Your task to perform on an android device: allow notifications from all sites in the chrome app Image 0: 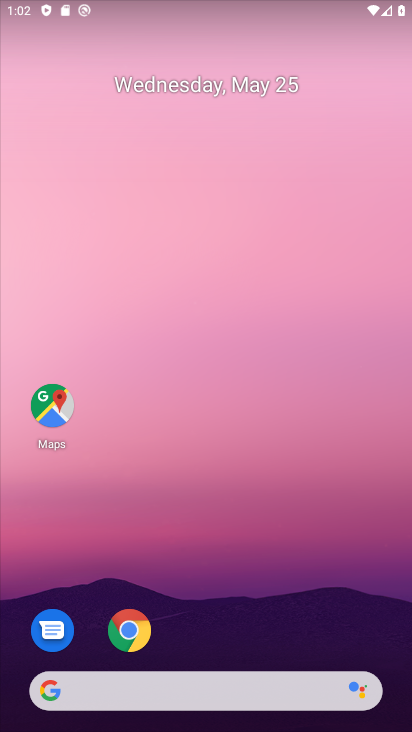
Step 0: drag from (324, 711) to (160, 87)
Your task to perform on an android device: allow notifications from all sites in the chrome app Image 1: 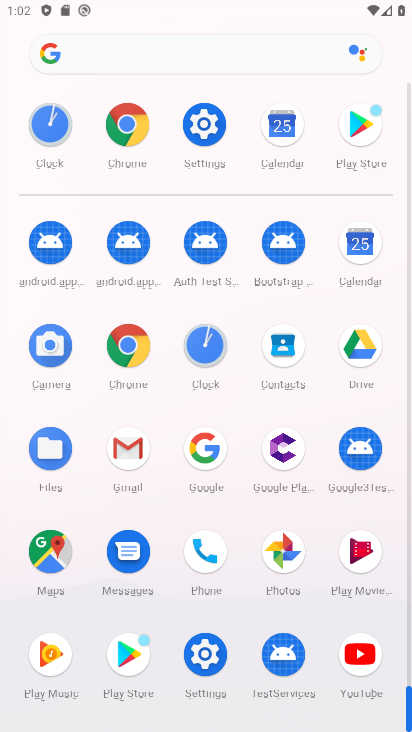
Step 1: click (126, 345)
Your task to perform on an android device: allow notifications from all sites in the chrome app Image 2: 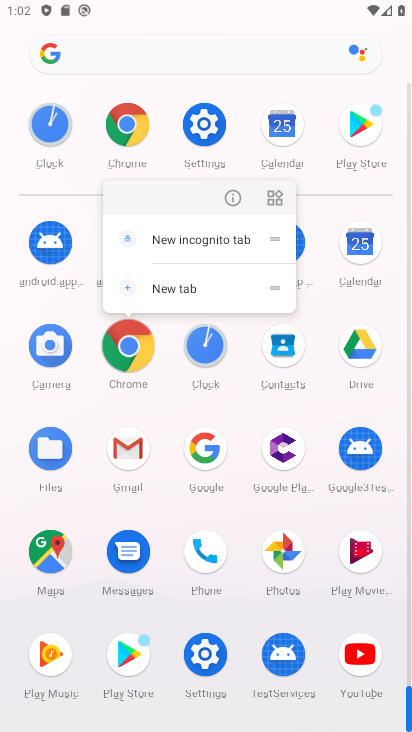
Step 2: click (126, 341)
Your task to perform on an android device: allow notifications from all sites in the chrome app Image 3: 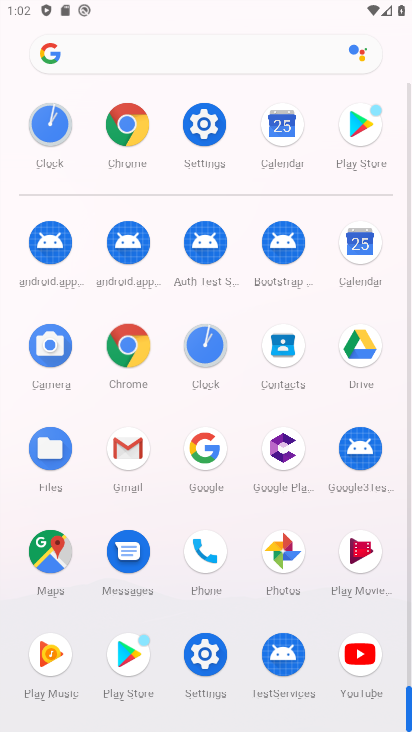
Step 3: click (126, 341)
Your task to perform on an android device: allow notifications from all sites in the chrome app Image 4: 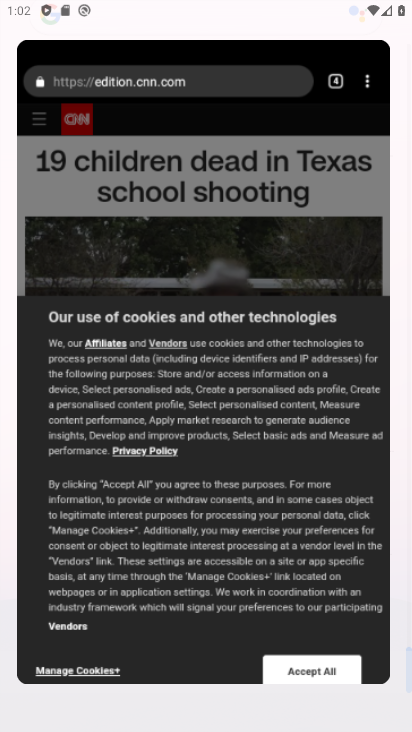
Step 4: click (126, 341)
Your task to perform on an android device: allow notifications from all sites in the chrome app Image 5: 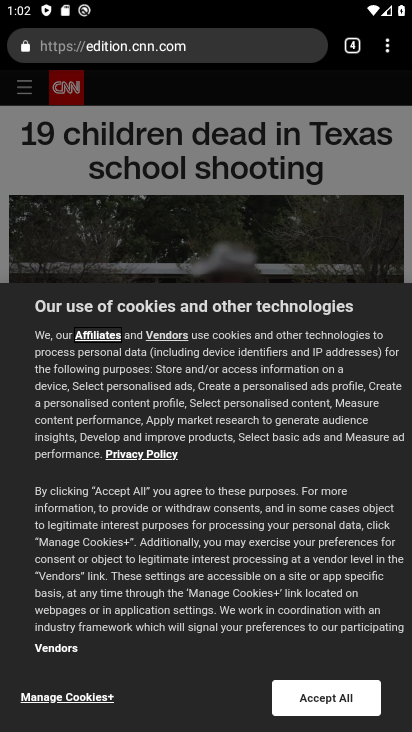
Step 5: drag from (387, 39) to (213, 604)
Your task to perform on an android device: allow notifications from all sites in the chrome app Image 6: 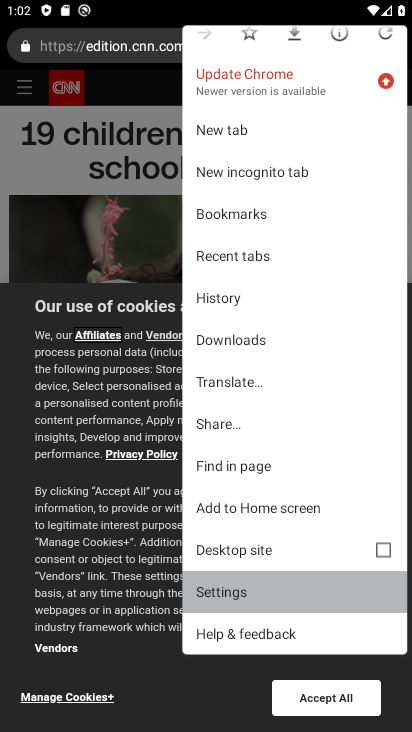
Step 6: click (214, 603)
Your task to perform on an android device: allow notifications from all sites in the chrome app Image 7: 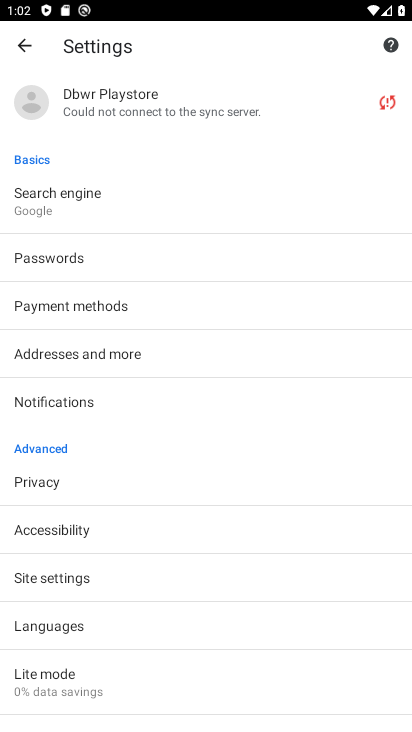
Step 7: click (40, 585)
Your task to perform on an android device: allow notifications from all sites in the chrome app Image 8: 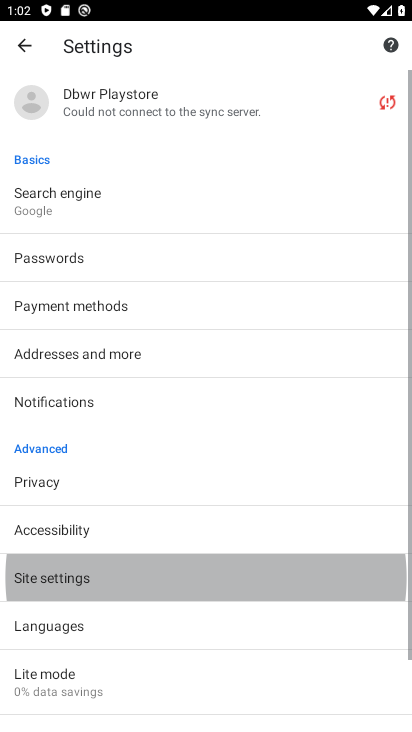
Step 8: click (40, 585)
Your task to perform on an android device: allow notifications from all sites in the chrome app Image 9: 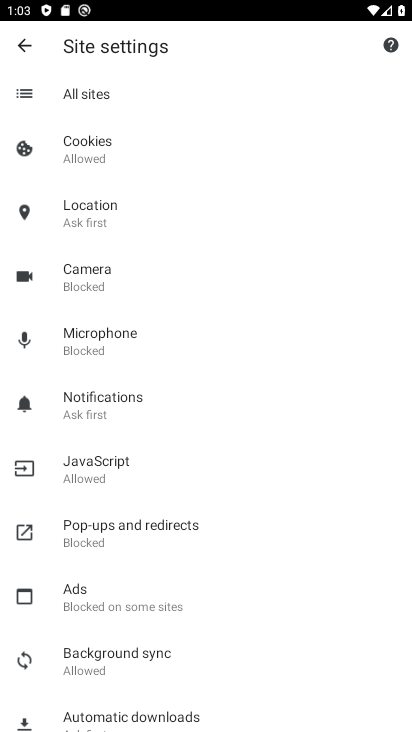
Step 9: click (86, 94)
Your task to perform on an android device: allow notifications from all sites in the chrome app Image 10: 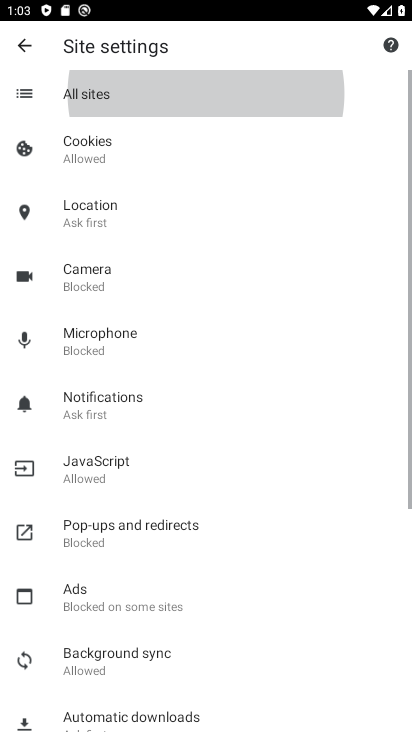
Step 10: click (87, 94)
Your task to perform on an android device: allow notifications from all sites in the chrome app Image 11: 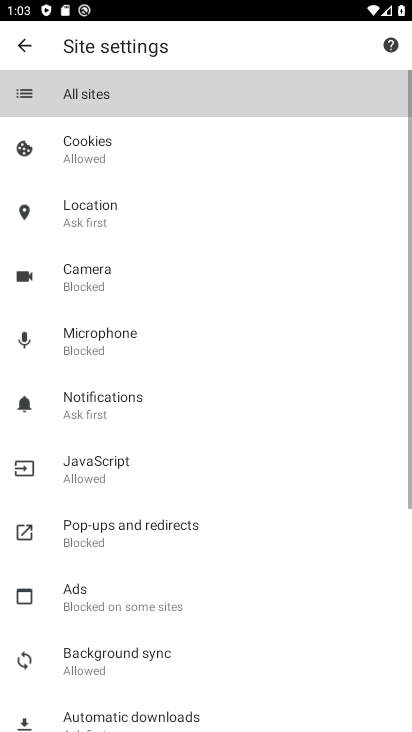
Step 11: click (87, 94)
Your task to perform on an android device: allow notifications from all sites in the chrome app Image 12: 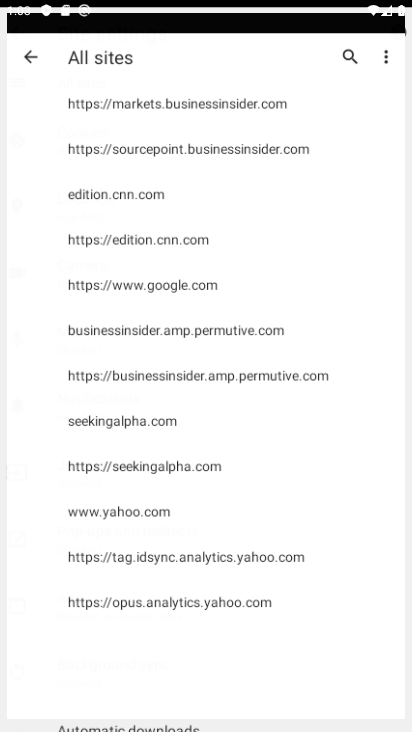
Step 12: click (87, 94)
Your task to perform on an android device: allow notifications from all sites in the chrome app Image 13: 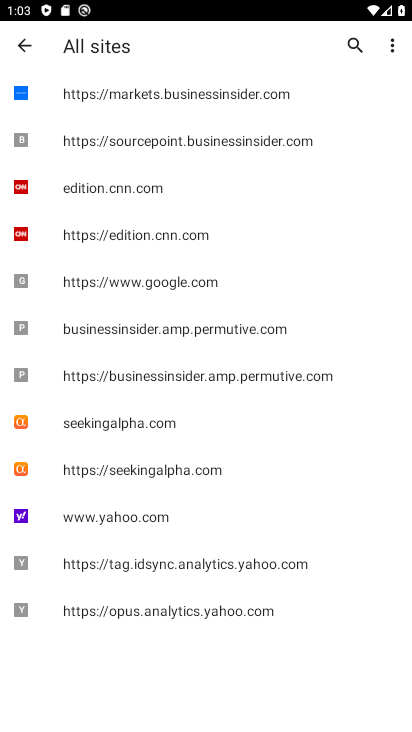
Step 13: click (88, 93)
Your task to perform on an android device: allow notifications from all sites in the chrome app Image 14: 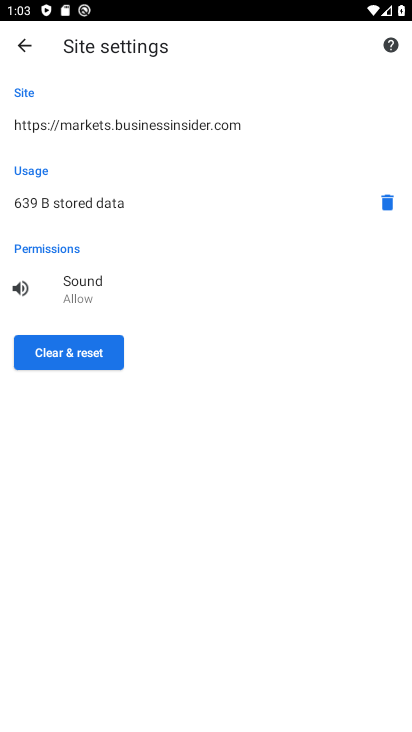
Step 14: click (168, 99)
Your task to perform on an android device: allow notifications from all sites in the chrome app Image 15: 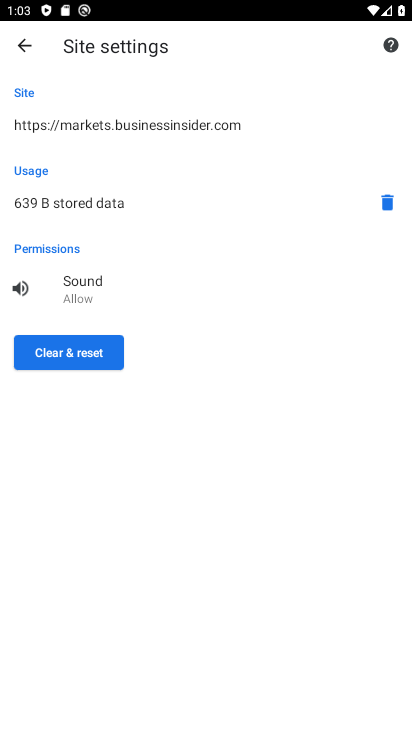
Step 15: click (60, 354)
Your task to perform on an android device: allow notifications from all sites in the chrome app Image 16: 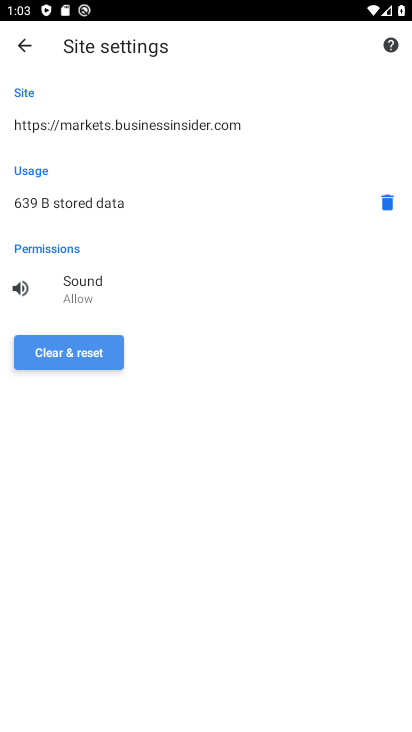
Step 16: click (62, 350)
Your task to perform on an android device: allow notifications from all sites in the chrome app Image 17: 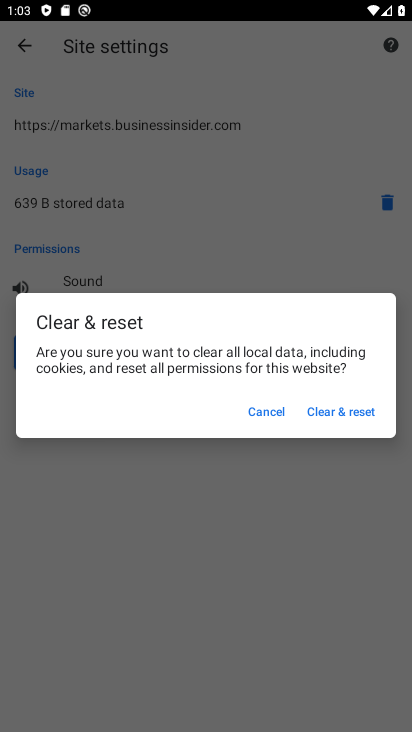
Step 17: click (343, 405)
Your task to perform on an android device: allow notifications from all sites in the chrome app Image 18: 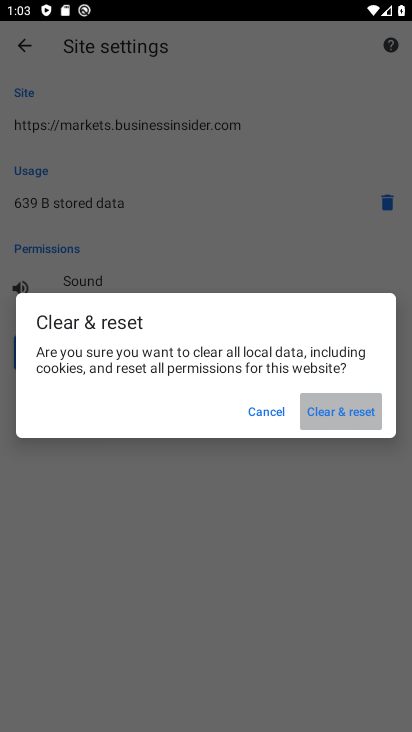
Step 18: click (343, 405)
Your task to perform on an android device: allow notifications from all sites in the chrome app Image 19: 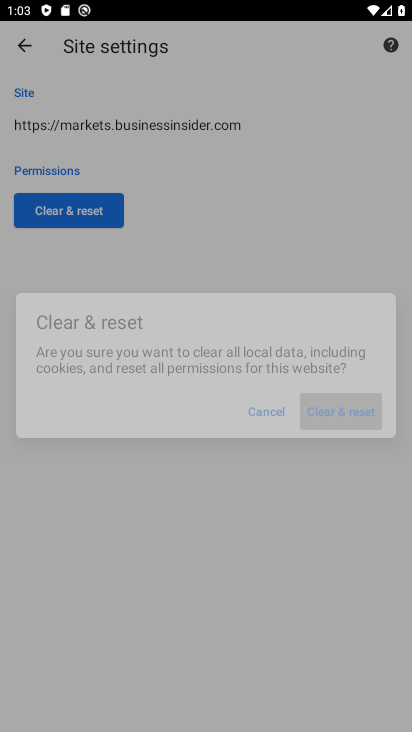
Step 19: click (343, 405)
Your task to perform on an android device: allow notifications from all sites in the chrome app Image 20: 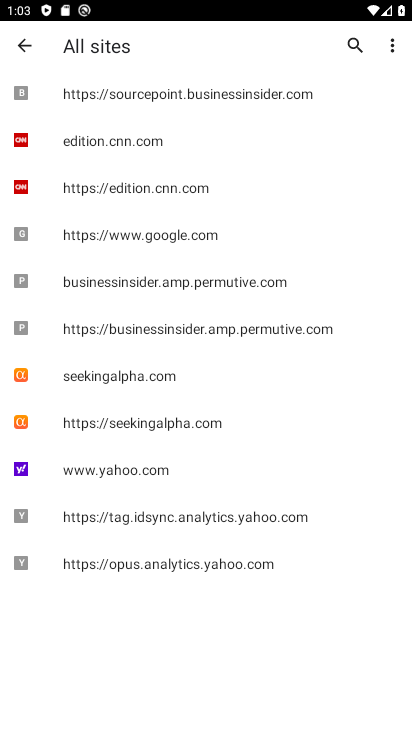
Step 20: click (342, 406)
Your task to perform on an android device: allow notifications from all sites in the chrome app Image 21: 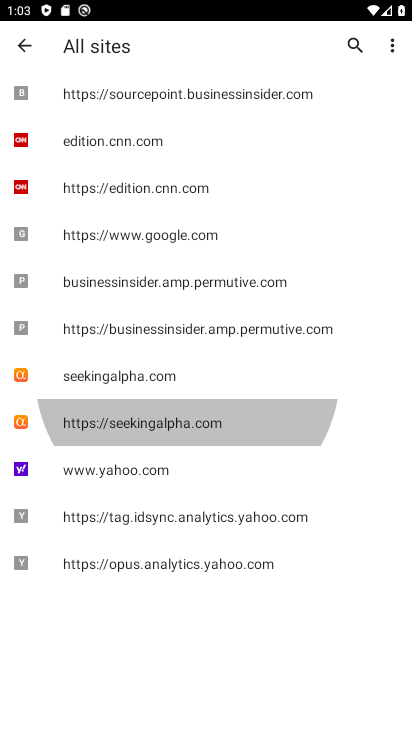
Step 21: click (342, 406)
Your task to perform on an android device: allow notifications from all sites in the chrome app Image 22: 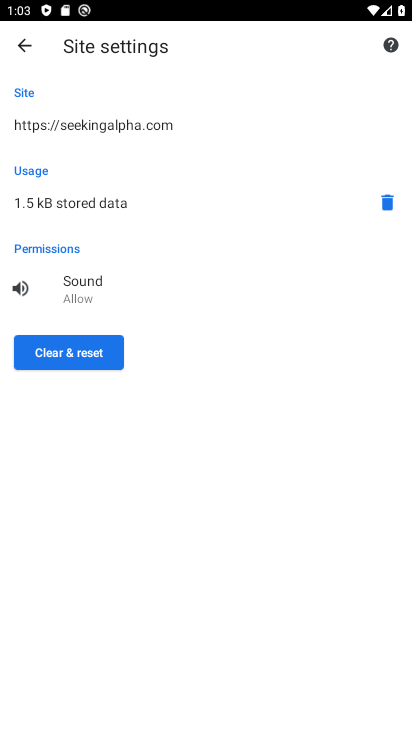
Step 22: task complete